Your task to perform on an android device: open a new tab in the chrome app Image 0: 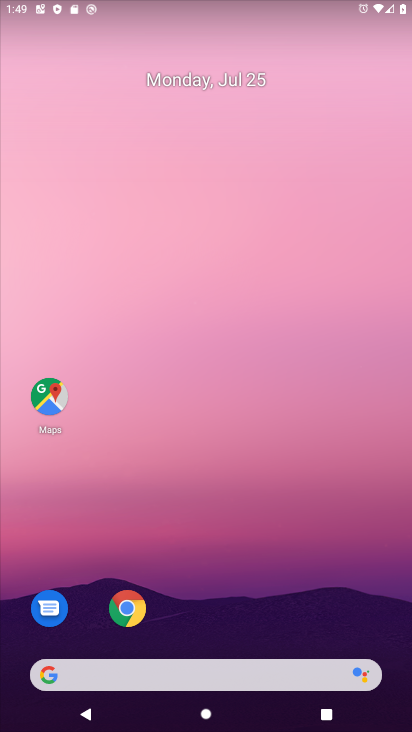
Step 0: drag from (252, 565) to (236, 35)
Your task to perform on an android device: open a new tab in the chrome app Image 1: 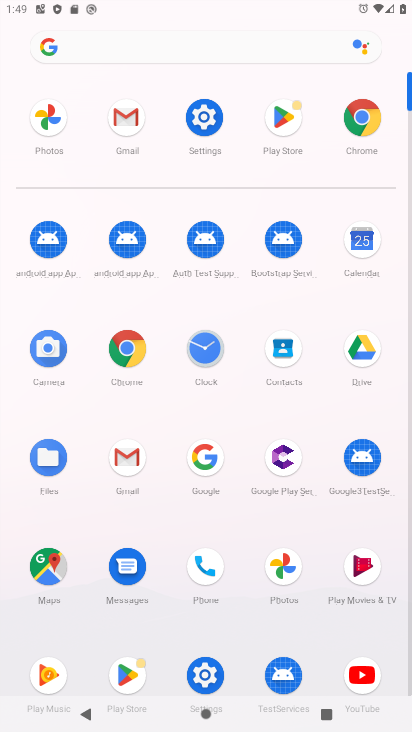
Step 1: click (362, 120)
Your task to perform on an android device: open a new tab in the chrome app Image 2: 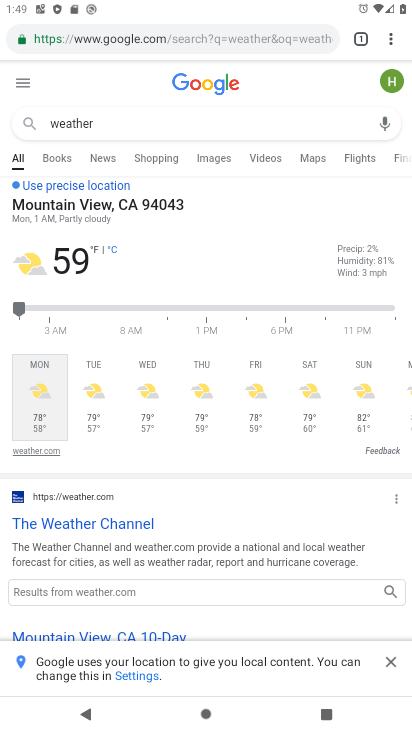
Step 2: task complete